Your task to perform on an android device: Open ESPN.com Image 0: 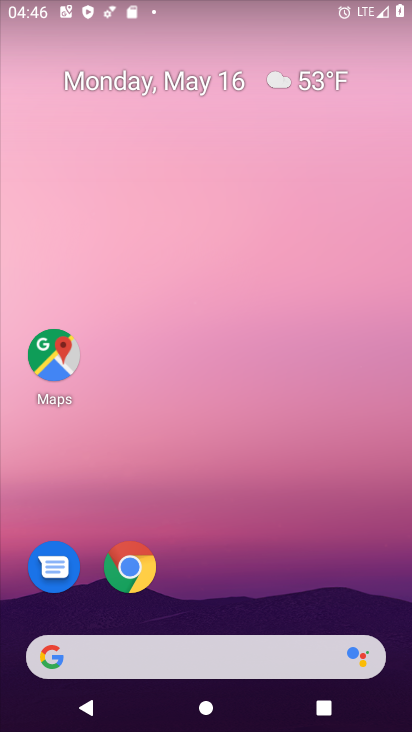
Step 0: drag from (303, 89) to (113, 98)
Your task to perform on an android device: Open ESPN.com Image 1: 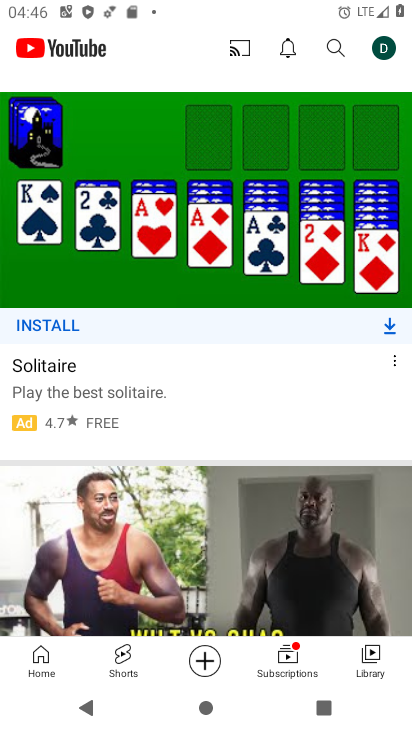
Step 1: press home button
Your task to perform on an android device: Open ESPN.com Image 2: 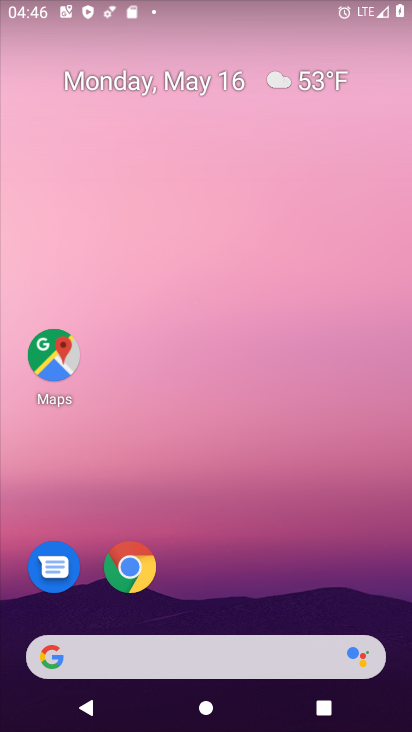
Step 2: drag from (334, 624) to (321, 1)
Your task to perform on an android device: Open ESPN.com Image 3: 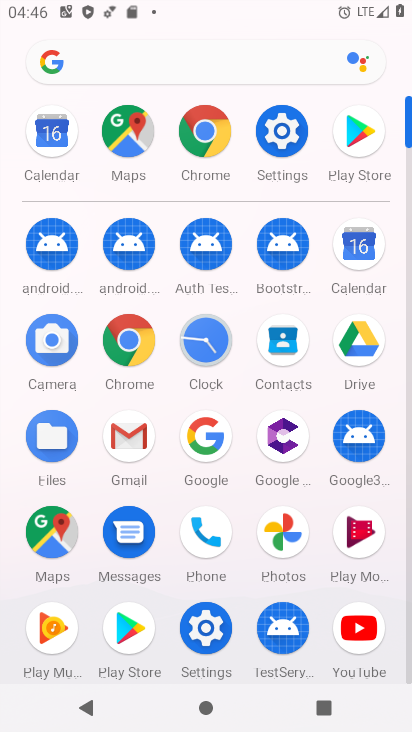
Step 3: click (138, 344)
Your task to perform on an android device: Open ESPN.com Image 4: 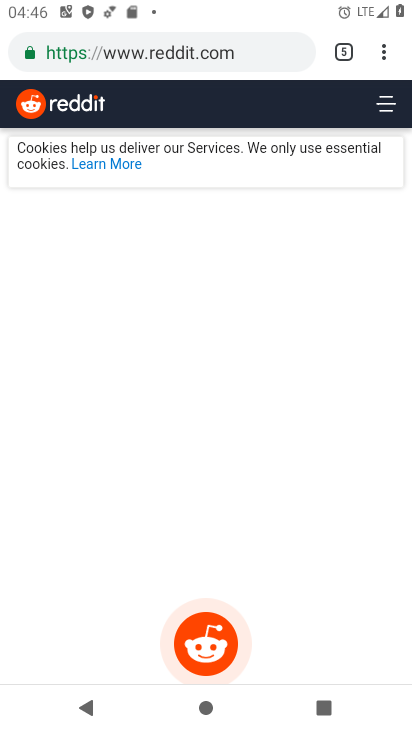
Step 4: click (262, 60)
Your task to perform on an android device: Open ESPN.com Image 5: 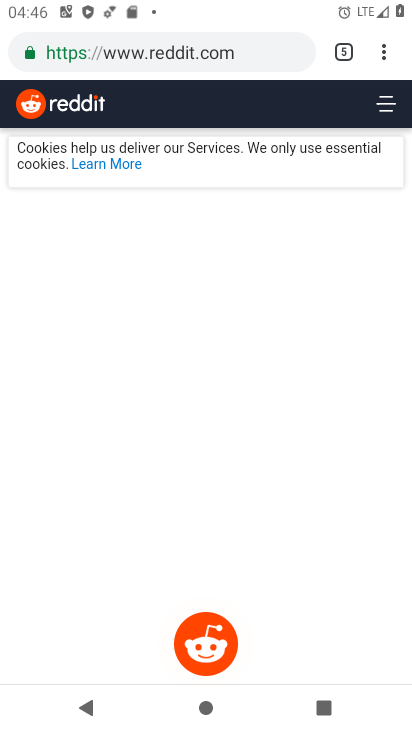
Step 5: click (261, 60)
Your task to perform on an android device: Open ESPN.com Image 6: 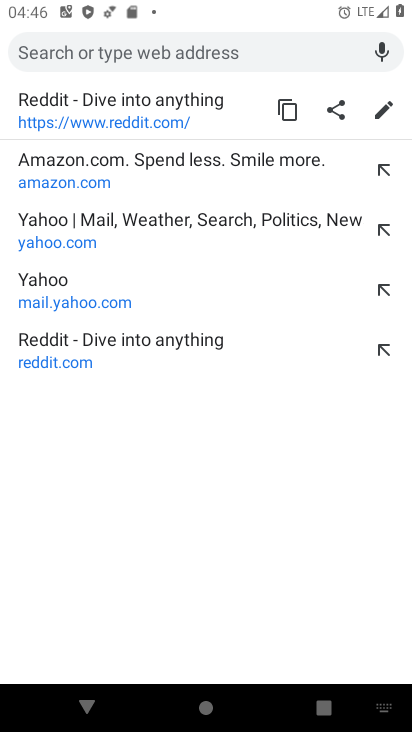
Step 6: type "espn.com"
Your task to perform on an android device: Open ESPN.com Image 7: 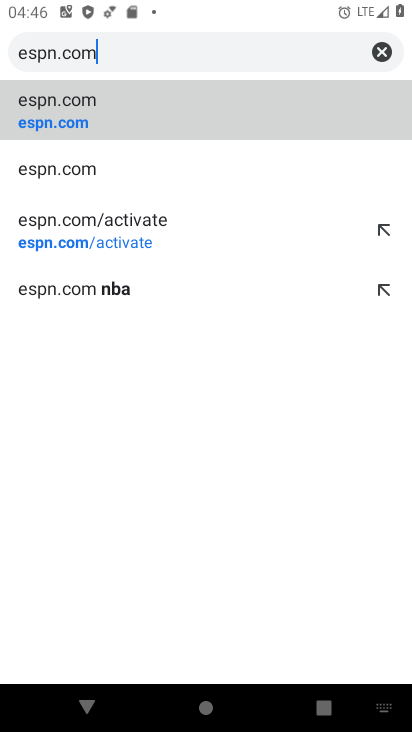
Step 7: click (158, 125)
Your task to perform on an android device: Open ESPN.com Image 8: 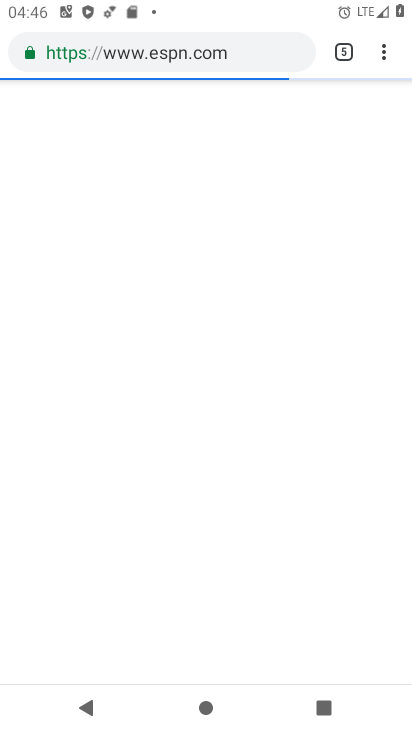
Step 8: task complete